Your task to perform on an android device: Open Wikipedia Image 0: 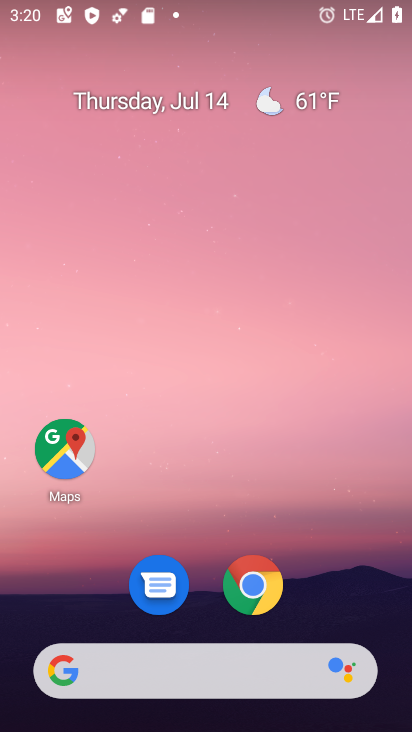
Step 0: click (256, 586)
Your task to perform on an android device: Open Wikipedia Image 1: 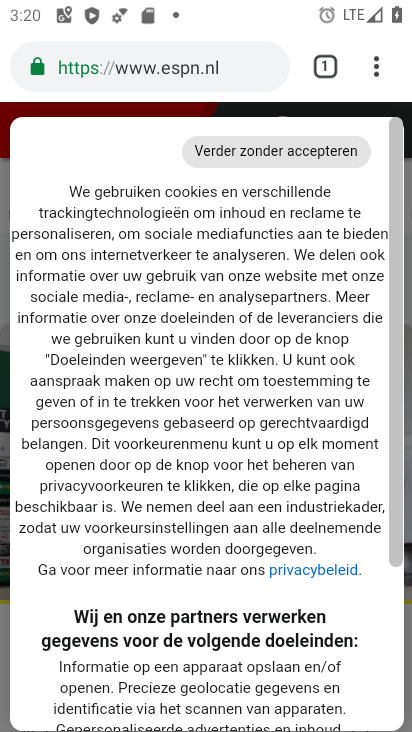
Step 1: click (377, 75)
Your task to perform on an android device: Open Wikipedia Image 2: 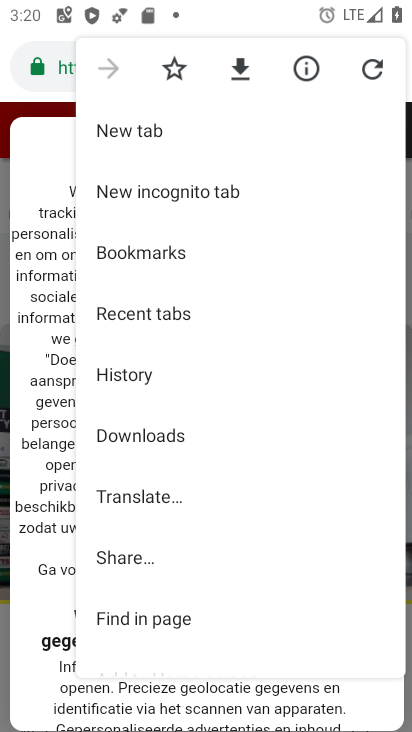
Step 2: click (264, 130)
Your task to perform on an android device: Open Wikipedia Image 3: 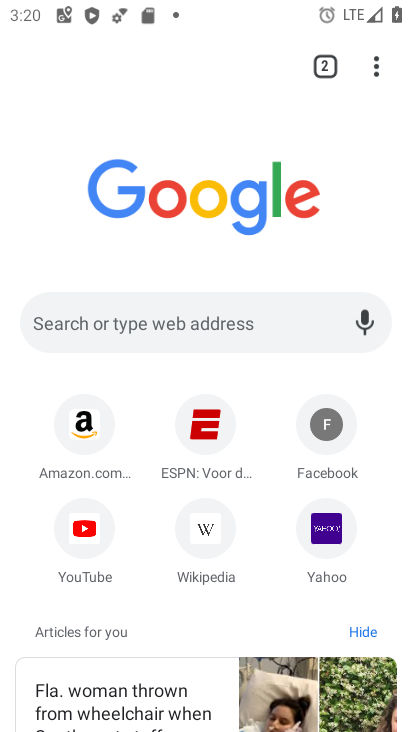
Step 3: click (198, 522)
Your task to perform on an android device: Open Wikipedia Image 4: 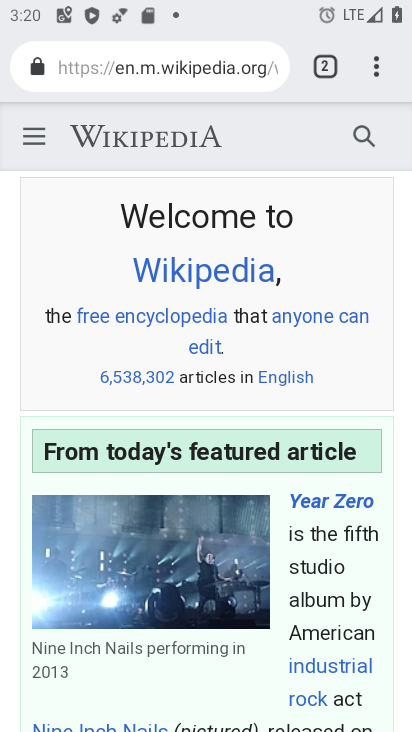
Step 4: task complete